Your task to perform on an android device: Go to ESPN.com Image 0: 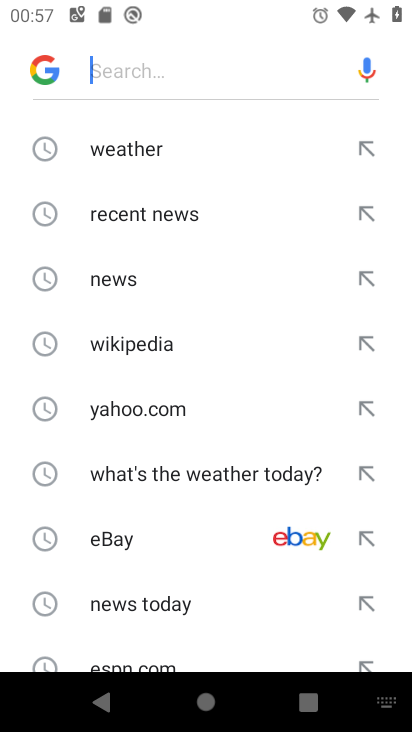
Step 0: press home button
Your task to perform on an android device: Go to ESPN.com Image 1: 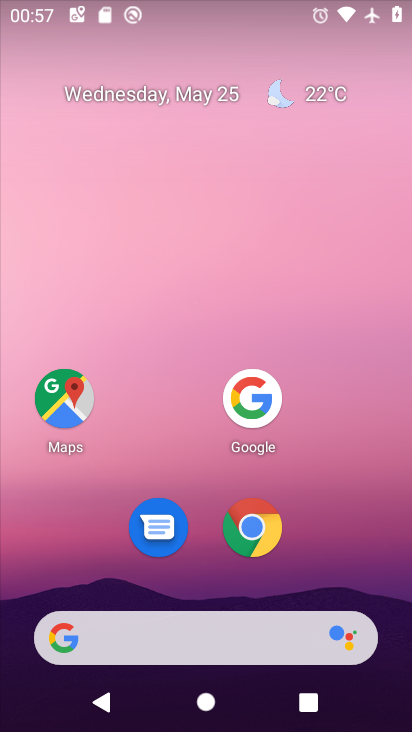
Step 1: click (255, 536)
Your task to perform on an android device: Go to ESPN.com Image 2: 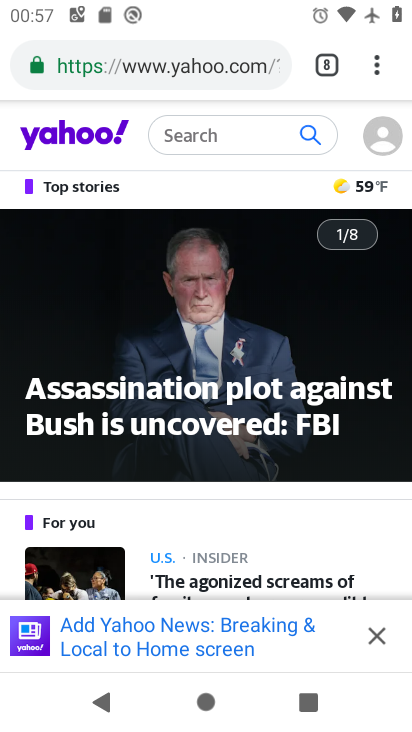
Step 2: drag from (373, 73) to (241, 129)
Your task to perform on an android device: Go to ESPN.com Image 3: 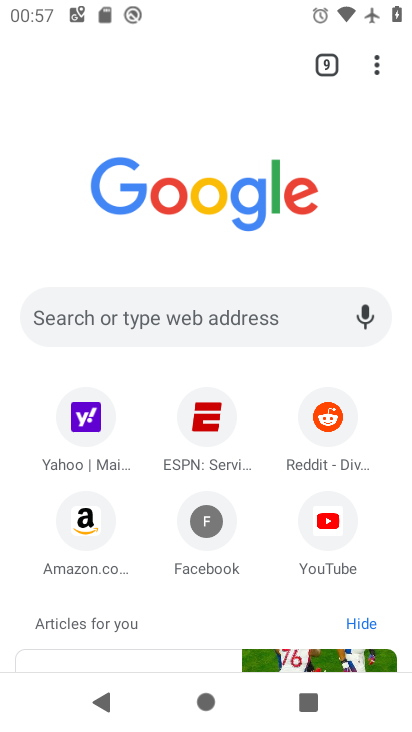
Step 3: click (218, 406)
Your task to perform on an android device: Go to ESPN.com Image 4: 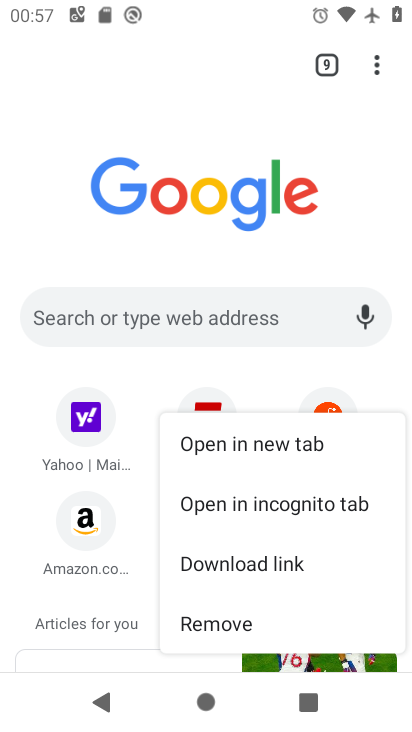
Step 4: click (196, 408)
Your task to perform on an android device: Go to ESPN.com Image 5: 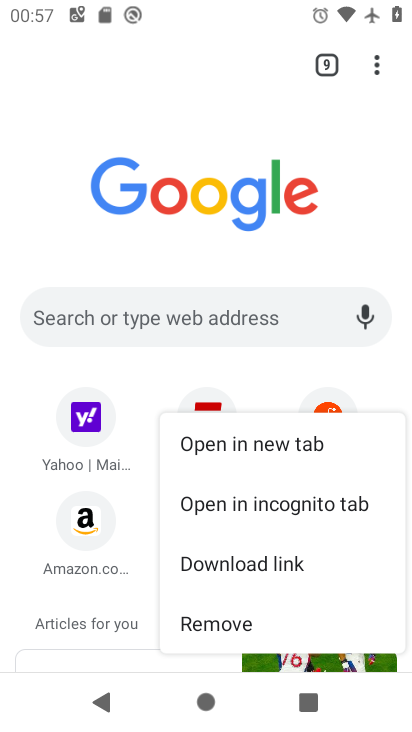
Step 5: drag from (167, 396) to (212, 249)
Your task to perform on an android device: Go to ESPN.com Image 6: 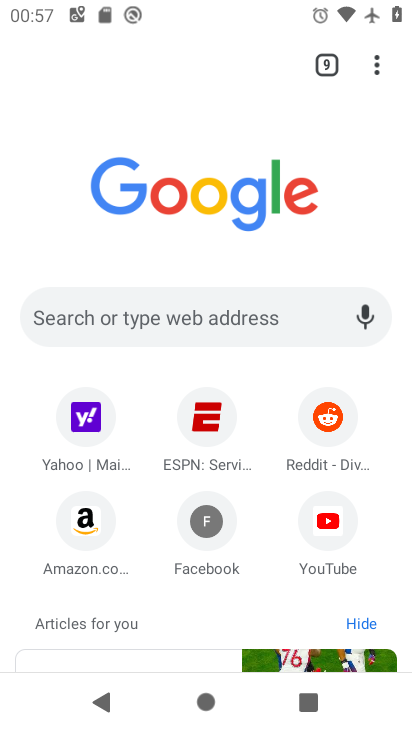
Step 6: click (205, 417)
Your task to perform on an android device: Go to ESPN.com Image 7: 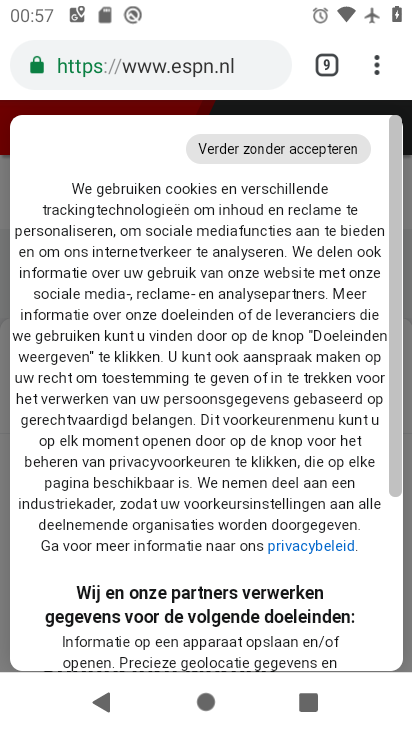
Step 7: task complete